Your task to perform on an android device: Search for bose soundlink on walmart.com, select the first entry, and add it to the cart. Image 0: 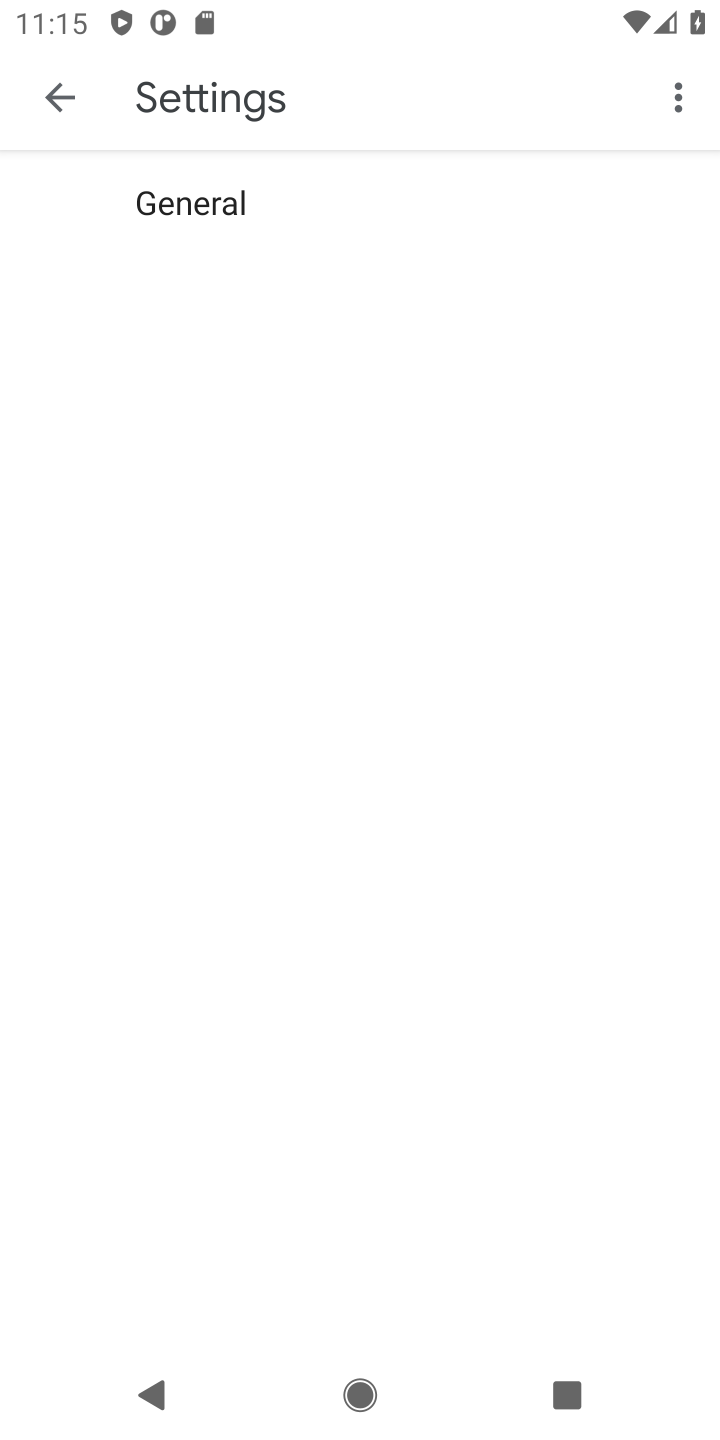
Step 0: press home button
Your task to perform on an android device: Search for bose soundlink on walmart.com, select the first entry, and add it to the cart. Image 1: 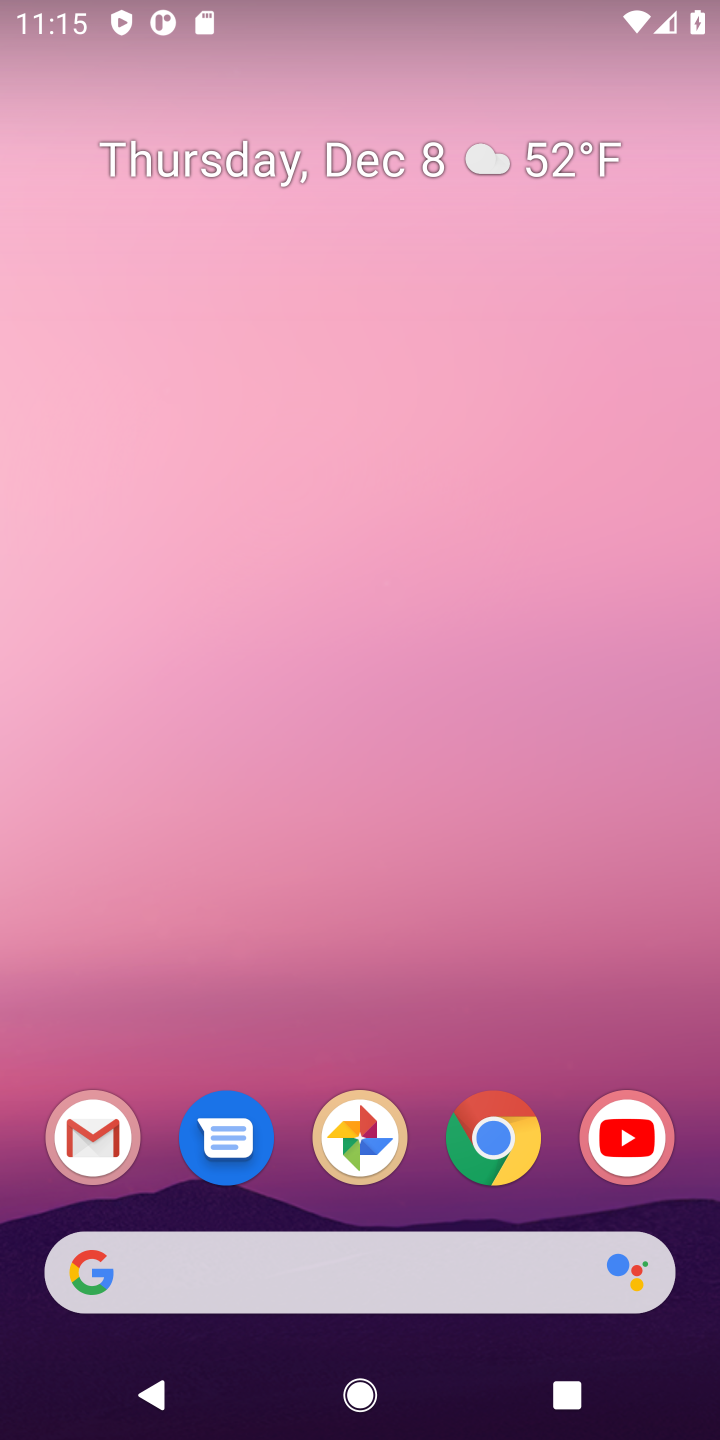
Step 1: click (491, 1147)
Your task to perform on an android device: Search for bose soundlink on walmart.com, select the first entry, and add it to the cart. Image 2: 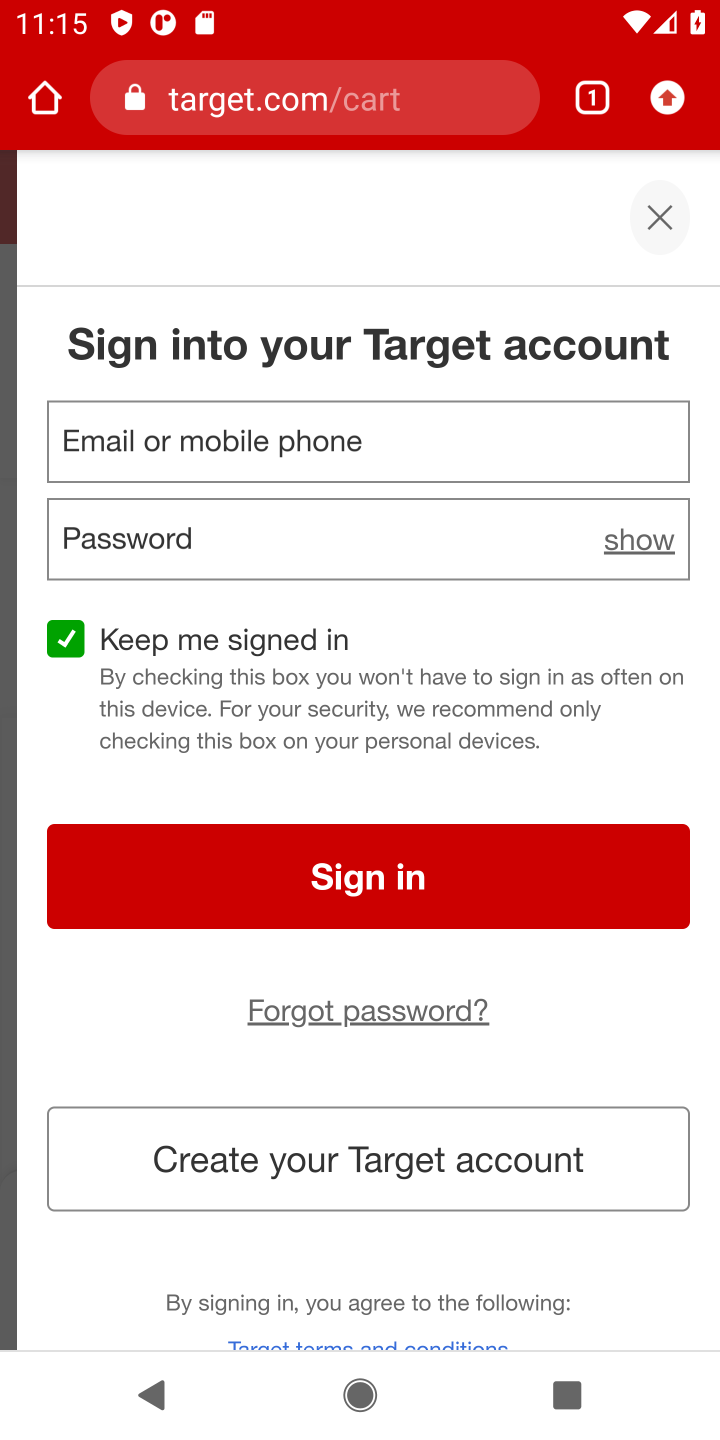
Step 2: click (263, 110)
Your task to perform on an android device: Search for bose soundlink on walmart.com, select the first entry, and add it to the cart. Image 3: 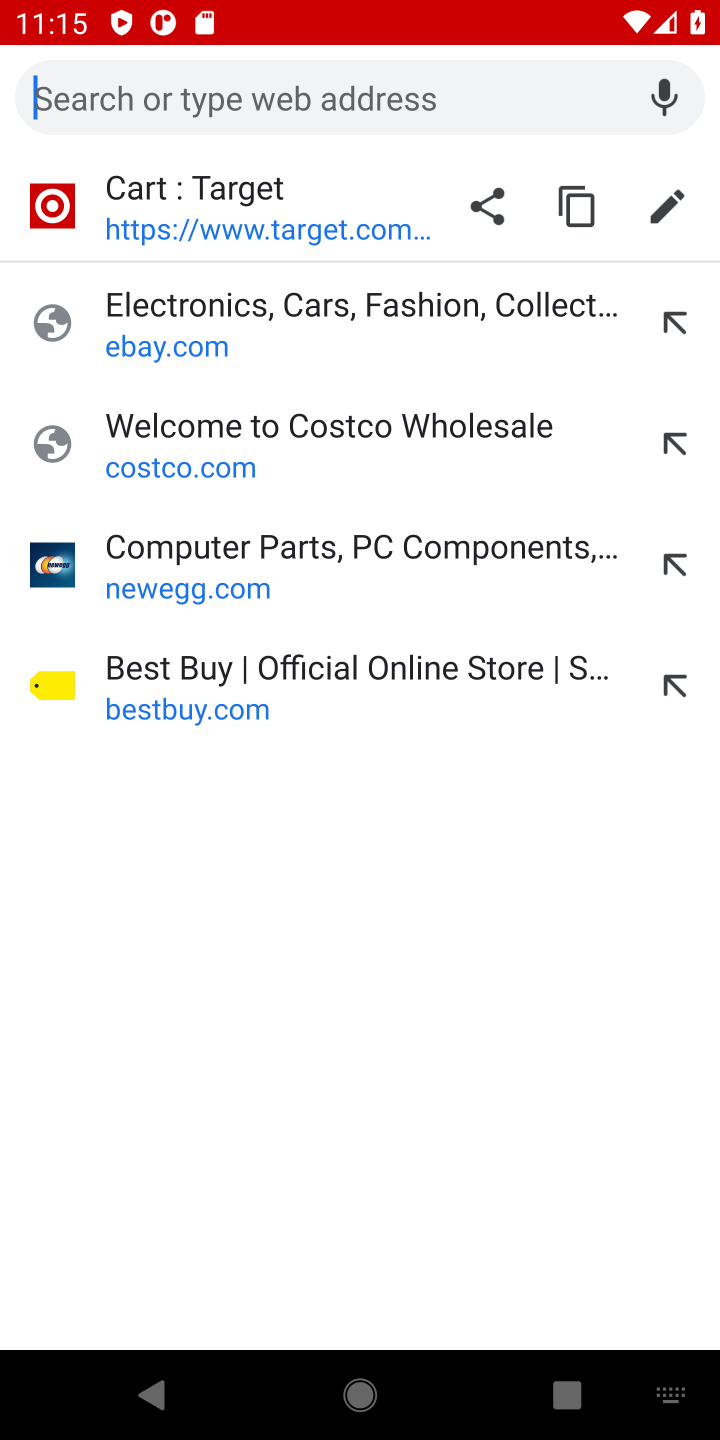
Step 3: type "walmart.com"
Your task to perform on an android device: Search for bose soundlink on walmart.com, select the first entry, and add it to the cart. Image 4: 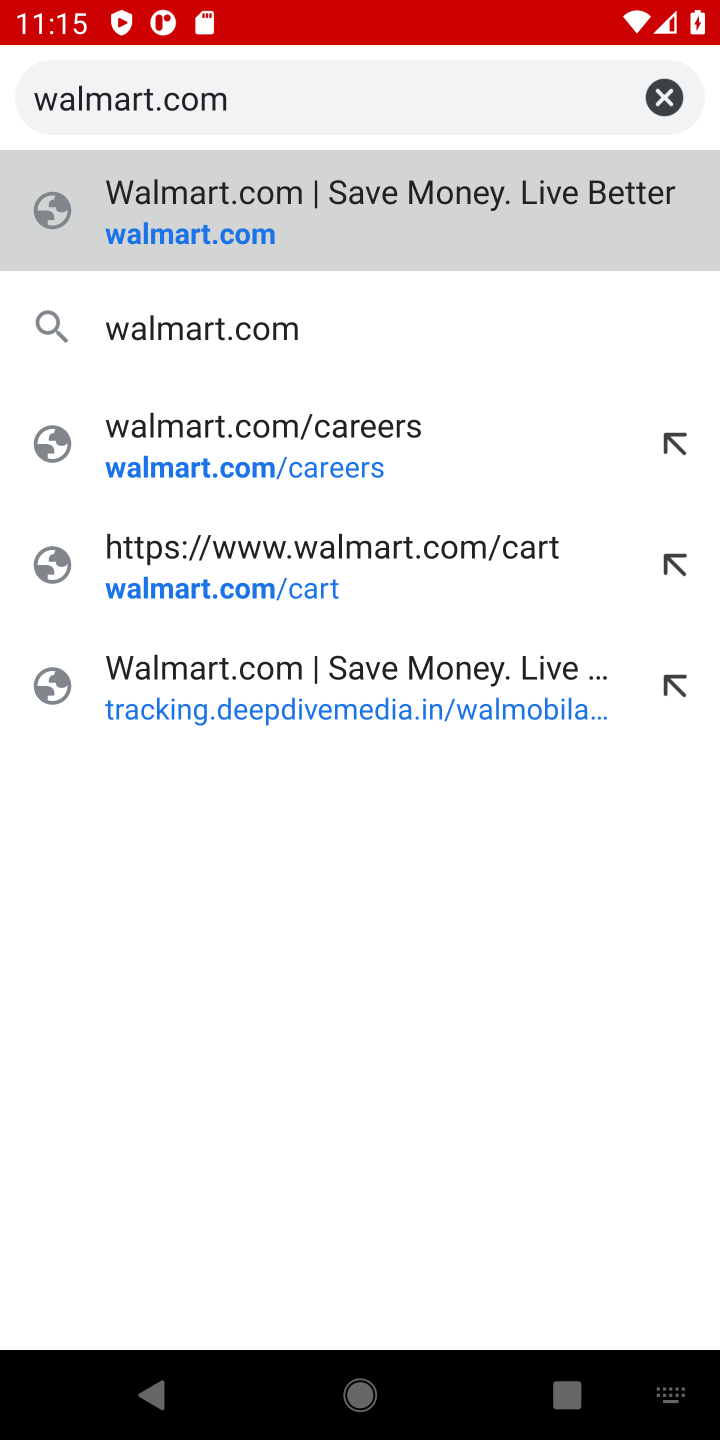
Step 4: press enter
Your task to perform on an android device: Search for bose soundlink on walmart.com, select the first entry, and add it to the cart. Image 5: 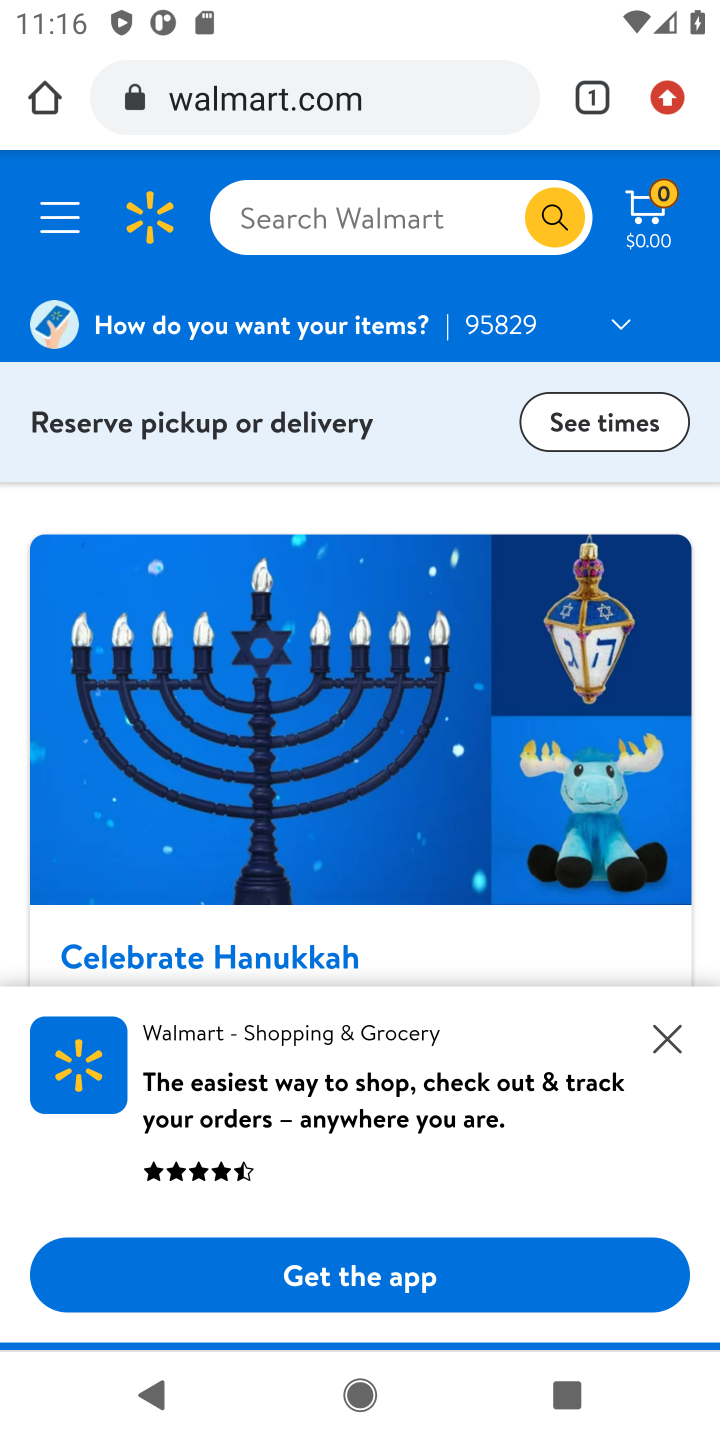
Step 5: click (338, 221)
Your task to perform on an android device: Search for bose soundlink on walmart.com, select the first entry, and add it to the cart. Image 6: 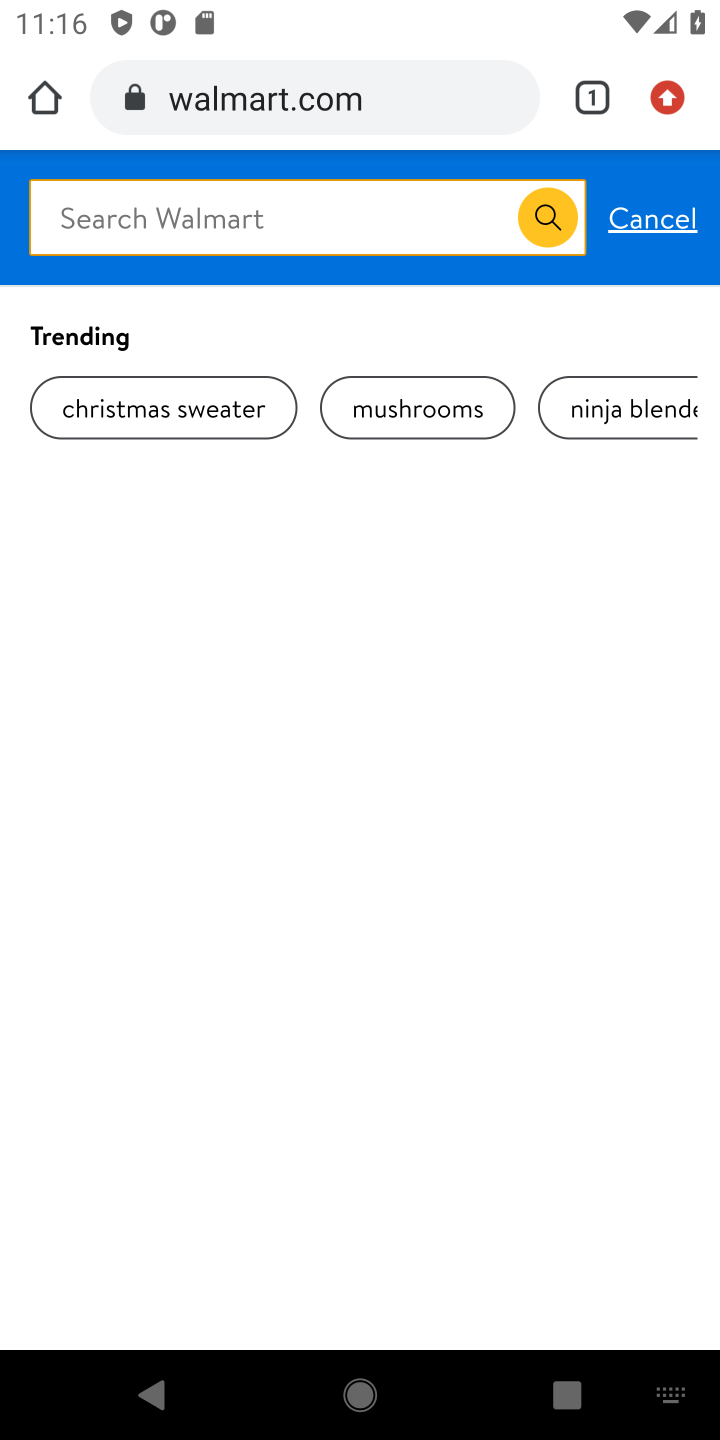
Step 6: type "bose soundlink"
Your task to perform on an android device: Search for bose soundlink on walmart.com, select the first entry, and add it to the cart. Image 7: 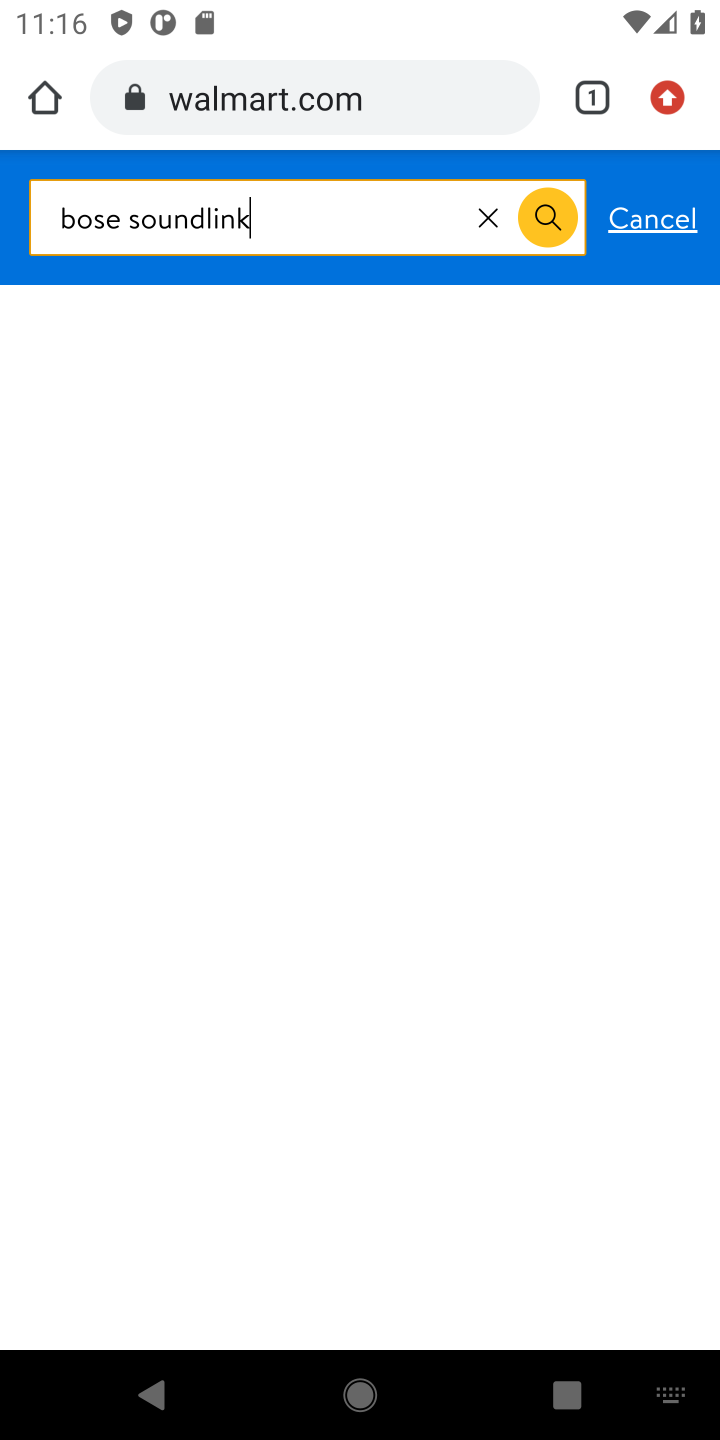
Step 7: press enter
Your task to perform on an android device: Search for bose soundlink on walmart.com, select the first entry, and add it to the cart. Image 8: 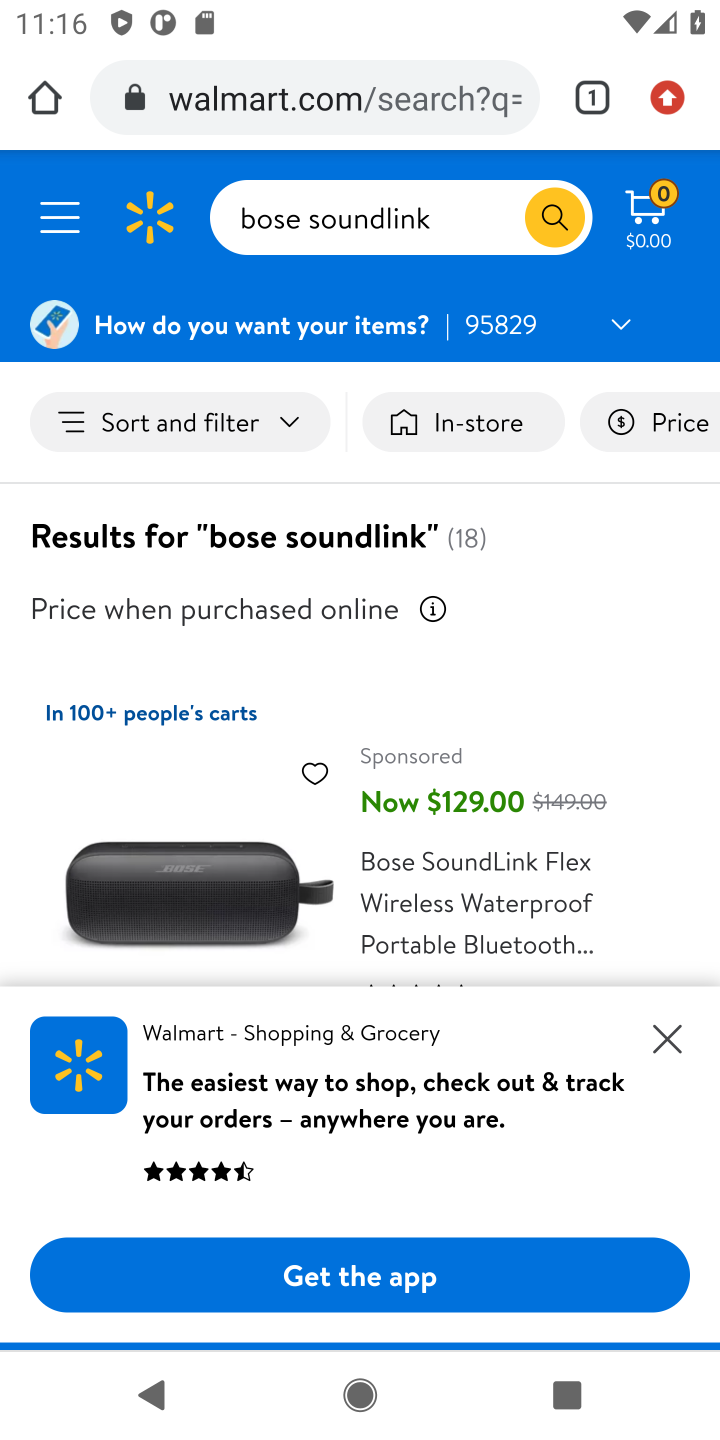
Step 8: drag from (620, 903) to (611, 628)
Your task to perform on an android device: Search for bose soundlink on walmart.com, select the first entry, and add it to the cart. Image 9: 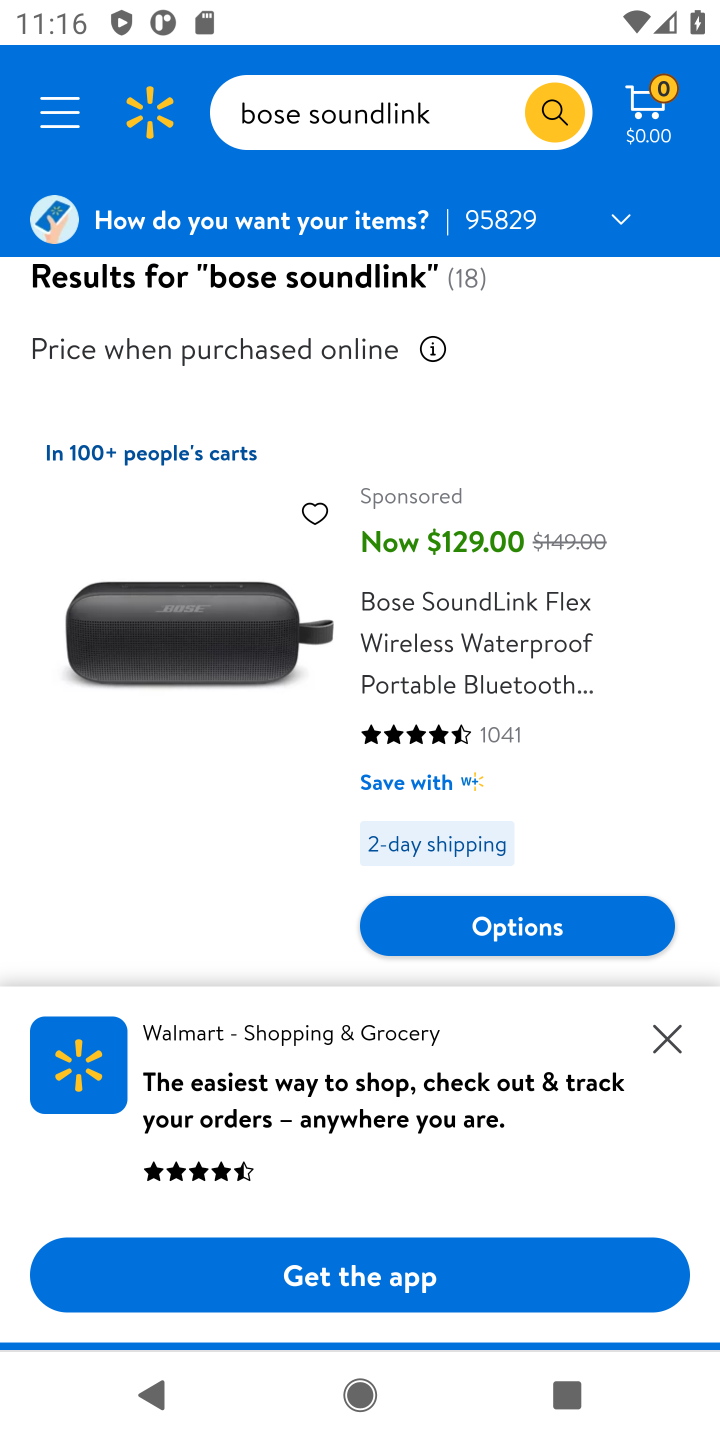
Step 9: click (660, 1053)
Your task to perform on an android device: Search for bose soundlink on walmart.com, select the first entry, and add it to the cart. Image 10: 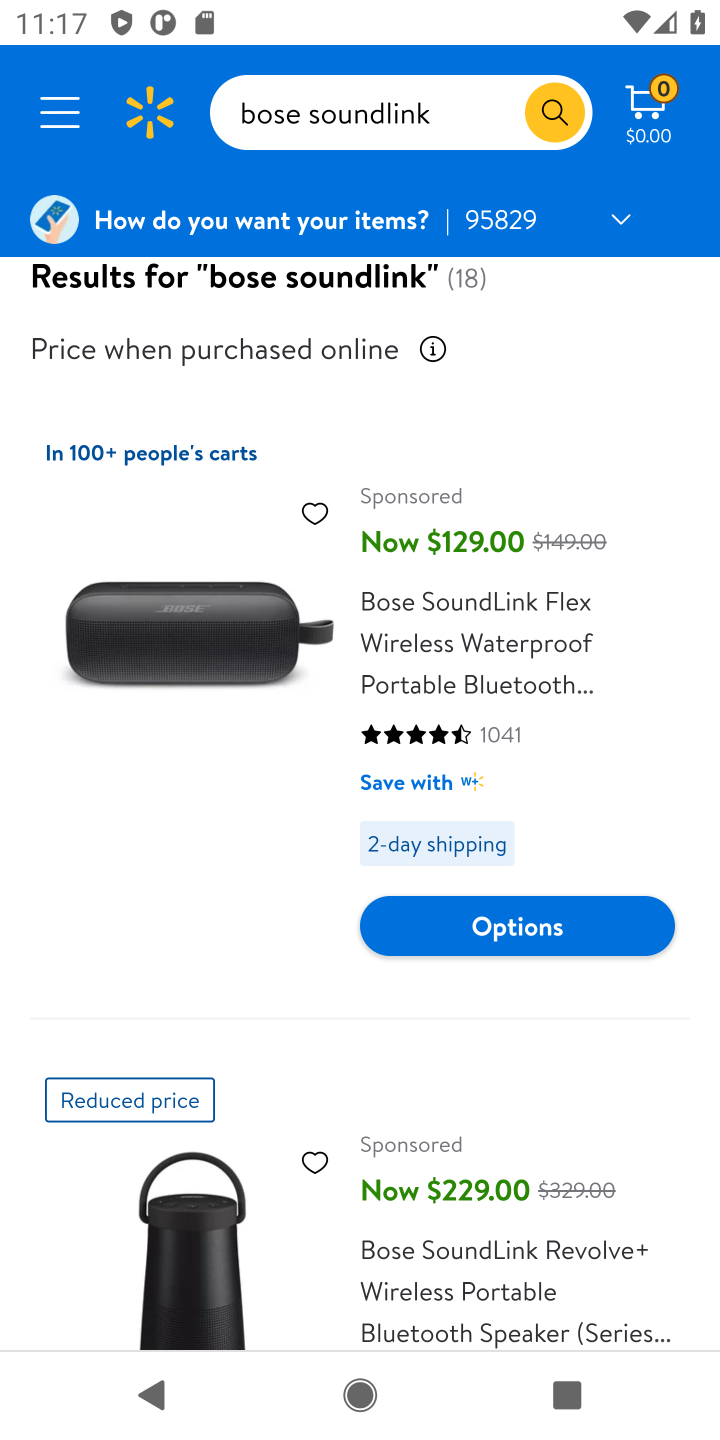
Step 10: click (461, 622)
Your task to perform on an android device: Search for bose soundlink on walmart.com, select the first entry, and add it to the cart. Image 11: 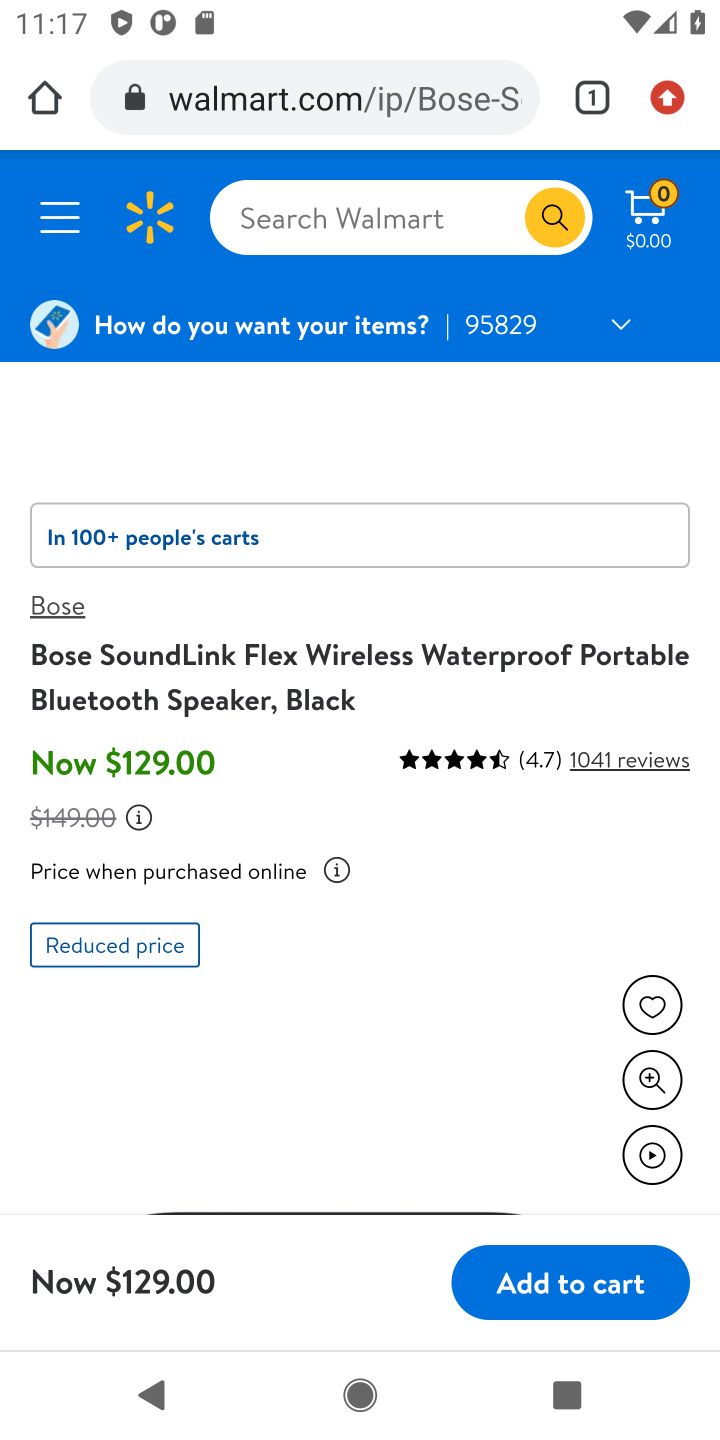
Step 11: click (567, 1285)
Your task to perform on an android device: Search for bose soundlink on walmart.com, select the first entry, and add it to the cart. Image 12: 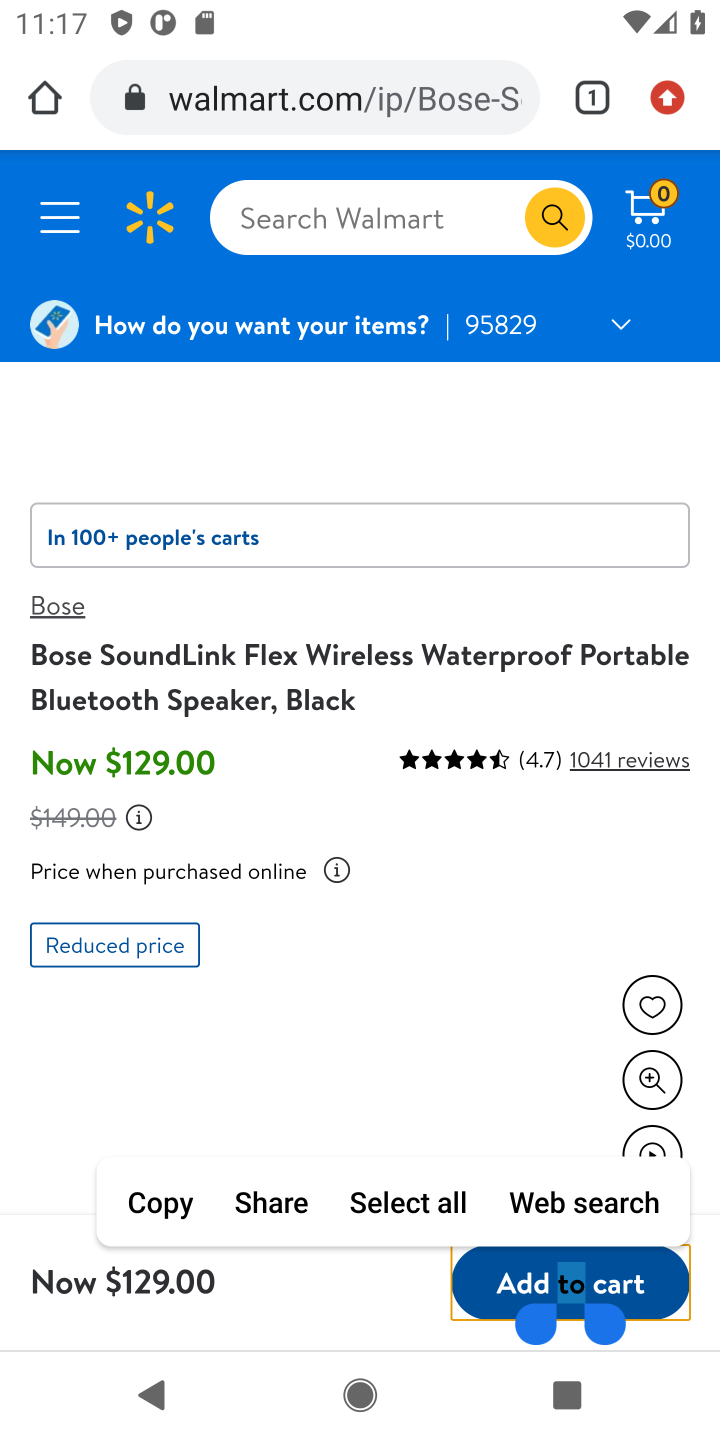
Step 12: click (485, 1285)
Your task to perform on an android device: Search for bose soundlink on walmart.com, select the first entry, and add it to the cart. Image 13: 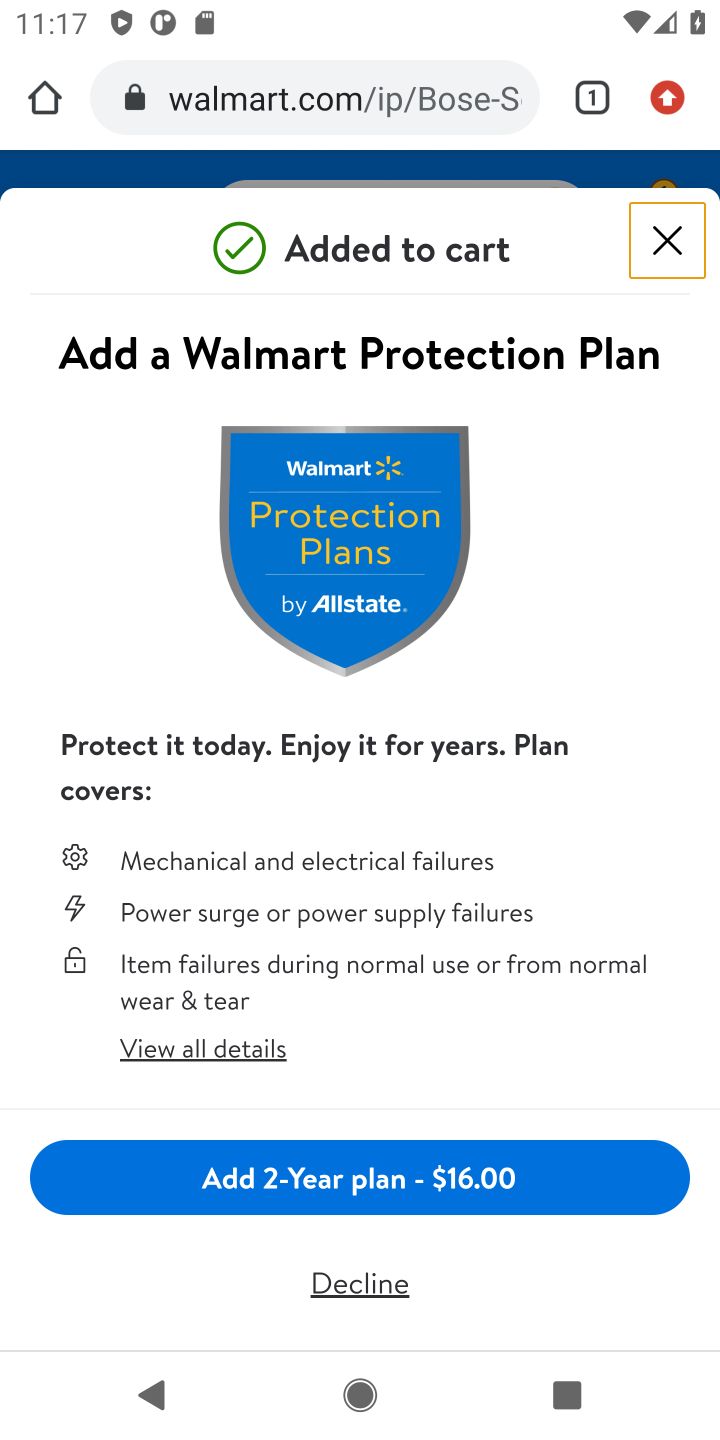
Step 13: click (426, 1193)
Your task to perform on an android device: Search for bose soundlink on walmart.com, select the first entry, and add it to the cart. Image 14: 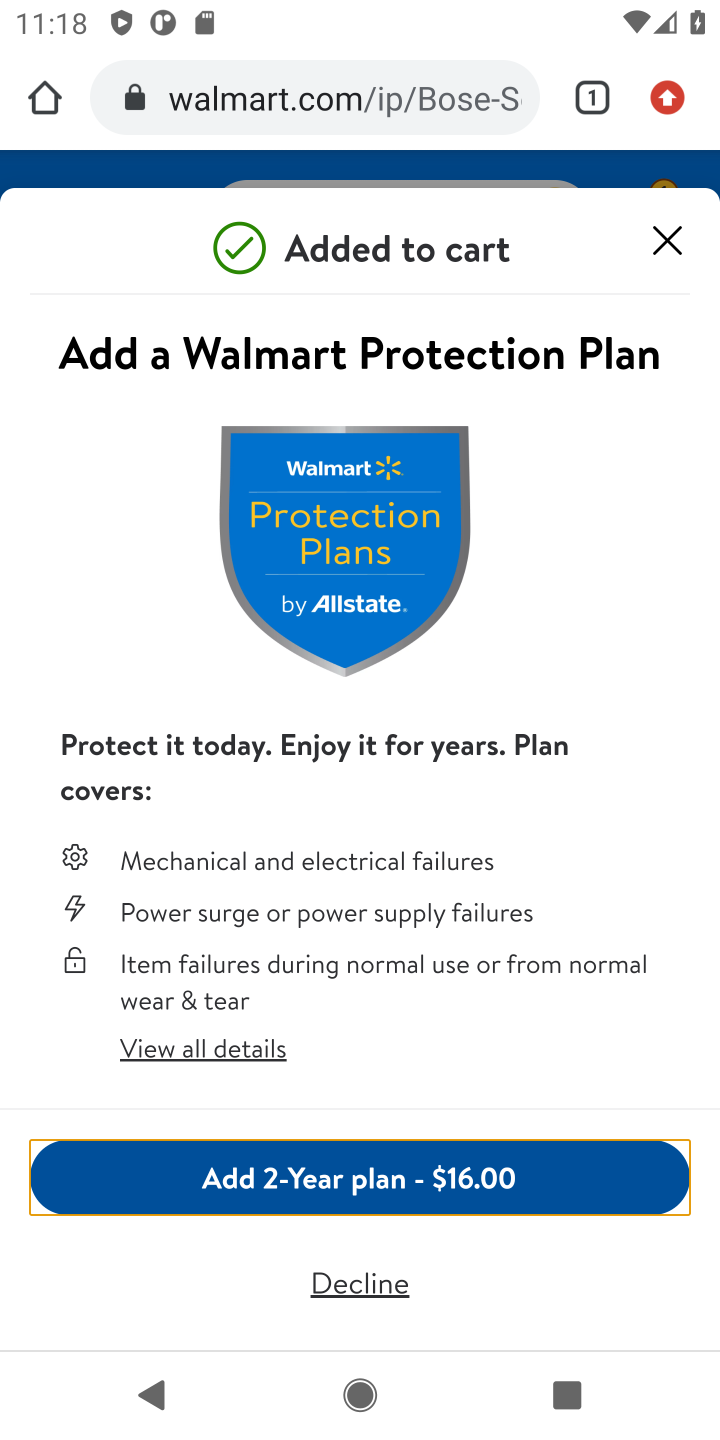
Step 14: click (388, 1187)
Your task to perform on an android device: Search for bose soundlink on walmart.com, select the first entry, and add it to the cart. Image 15: 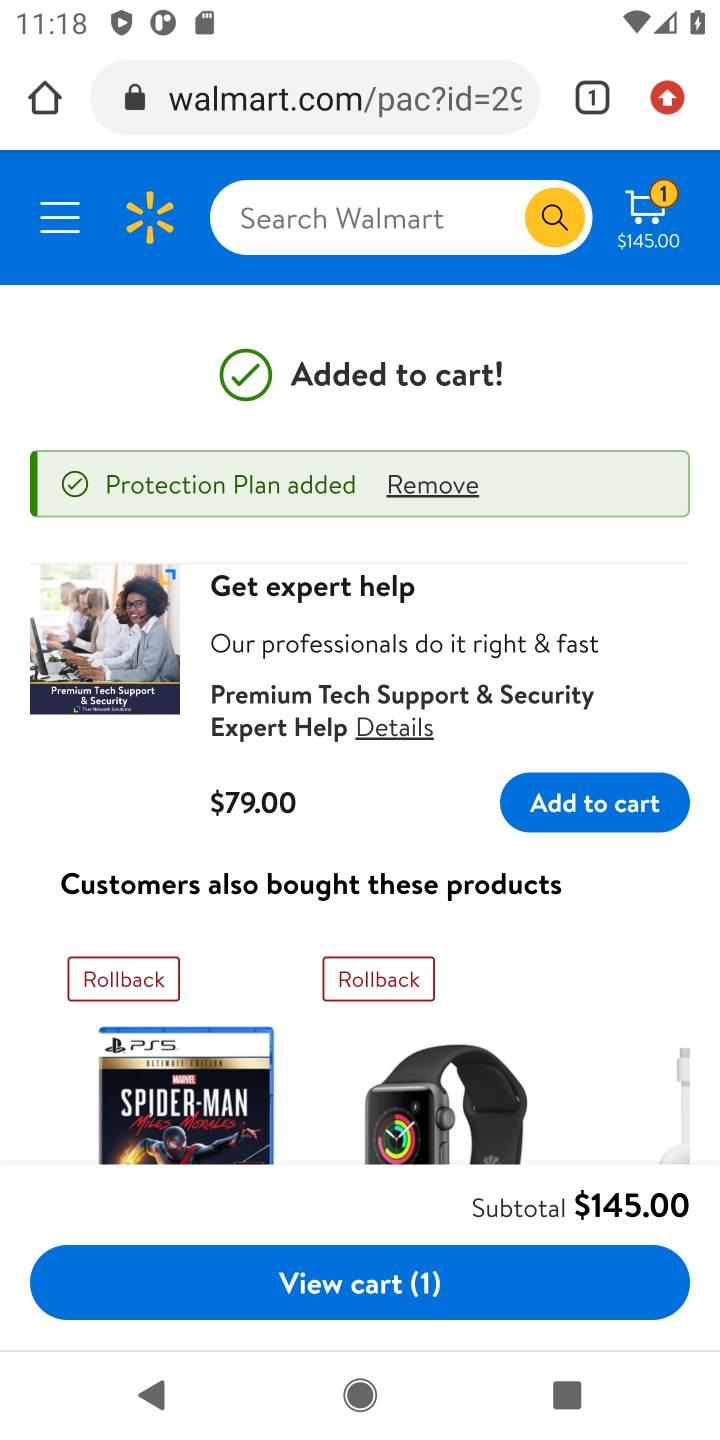
Step 15: task complete